Your task to perform on an android device: find which apps use the phone's location Image 0: 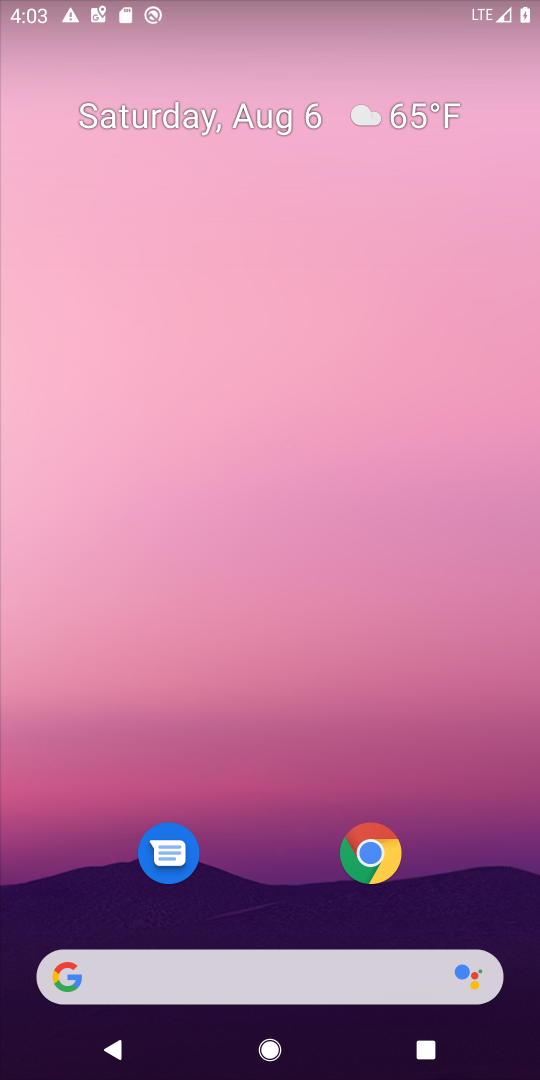
Step 0: drag from (248, 839) to (232, 160)
Your task to perform on an android device: find which apps use the phone's location Image 1: 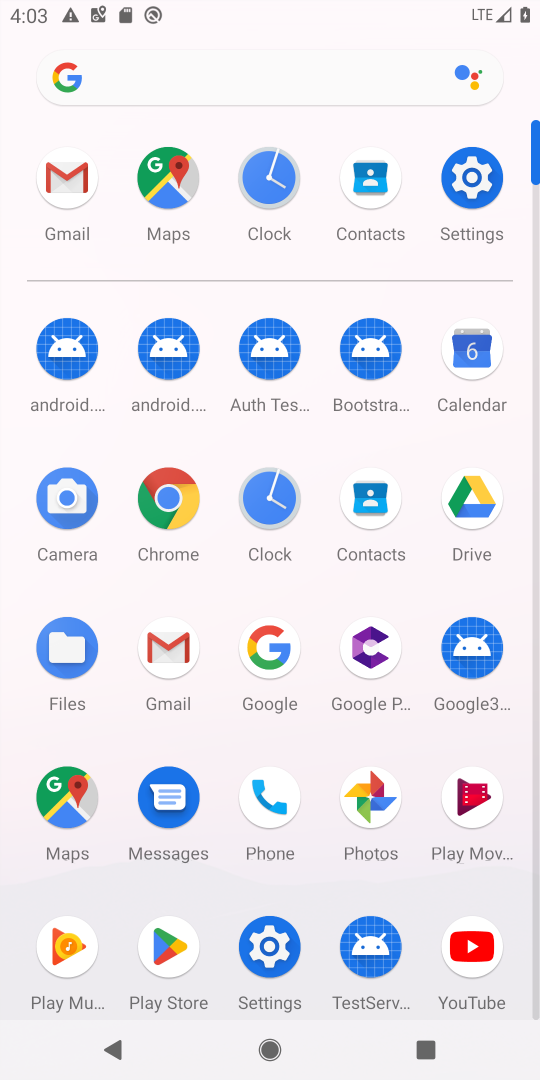
Step 1: click (500, 198)
Your task to perform on an android device: find which apps use the phone's location Image 2: 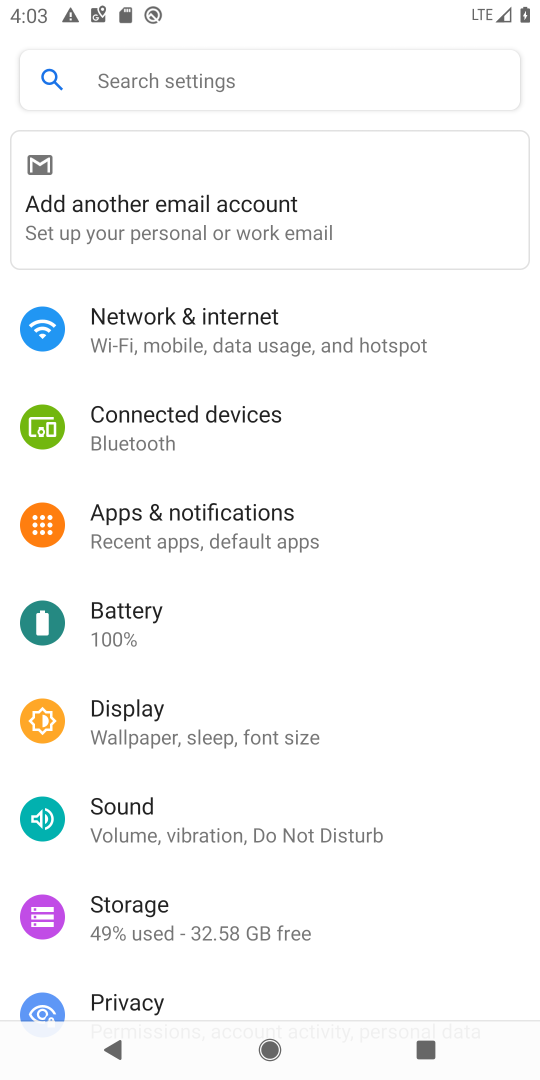
Step 2: drag from (202, 943) to (265, 220)
Your task to perform on an android device: find which apps use the phone's location Image 3: 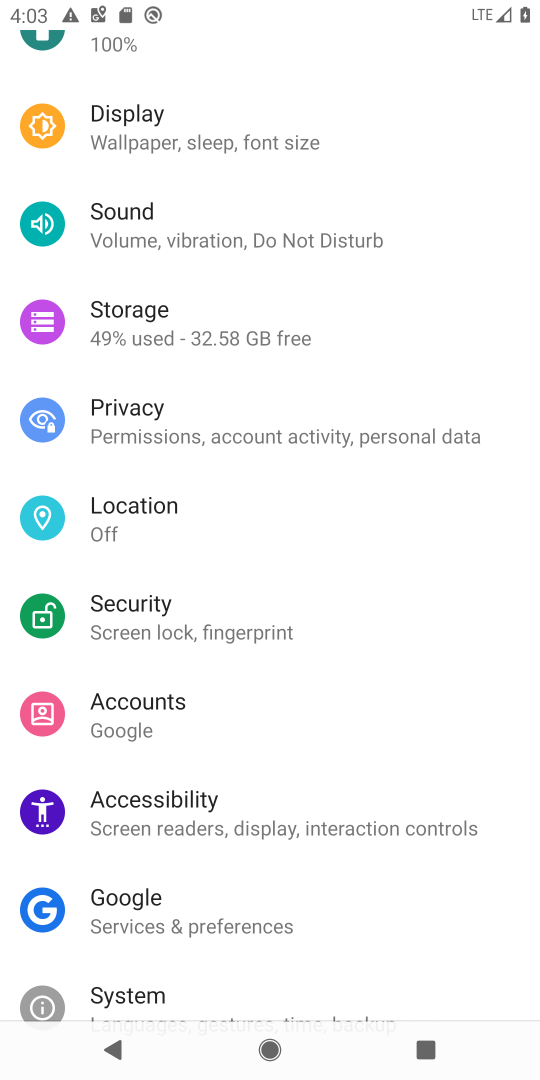
Step 3: click (176, 504)
Your task to perform on an android device: find which apps use the phone's location Image 4: 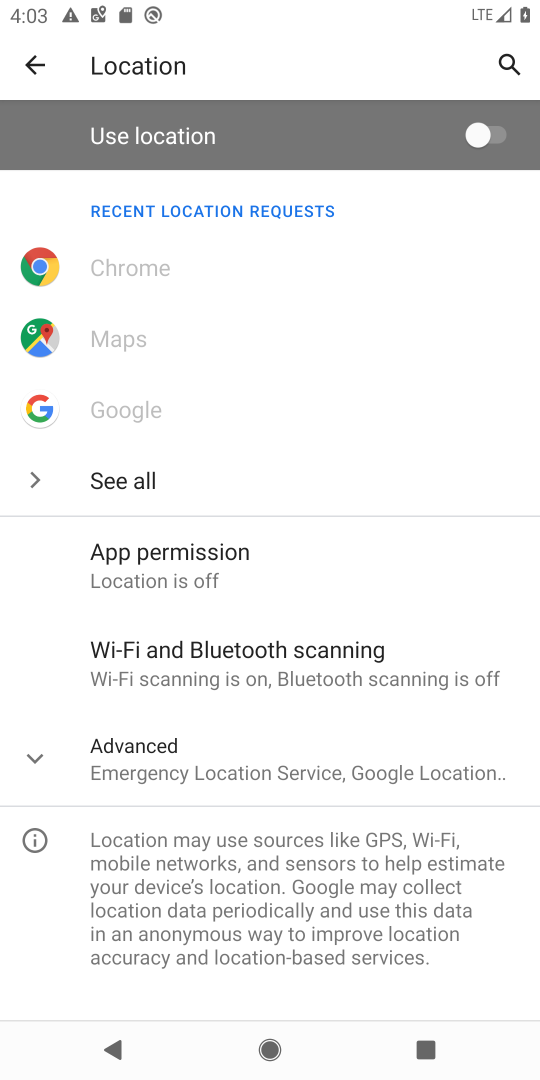
Step 4: click (183, 579)
Your task to perform on an android device: find which apps use the phone's location Image 5: 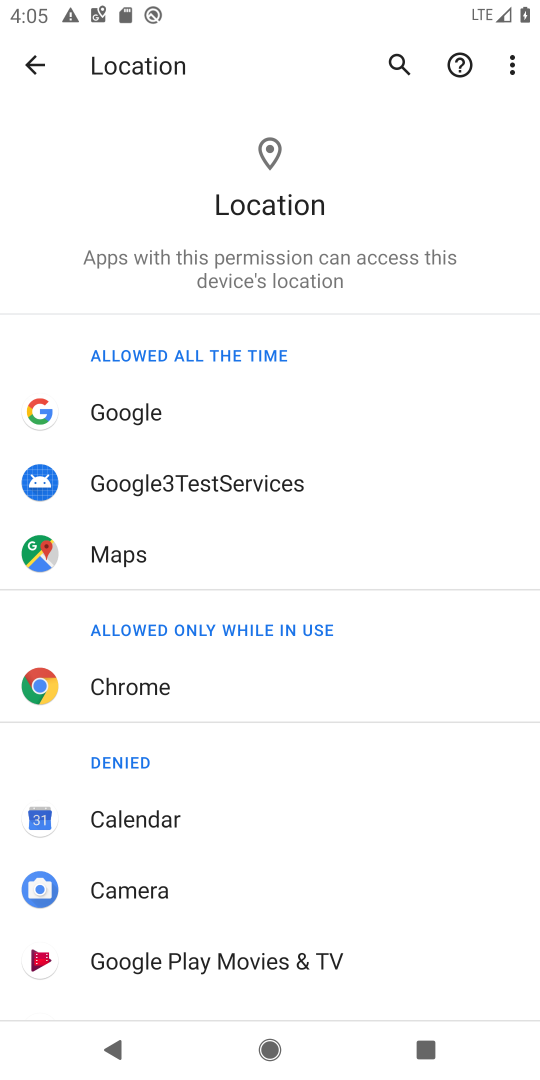
Step 5: task complete